Your task to perform on an android device: turn off translation in the chrome app Image 0: 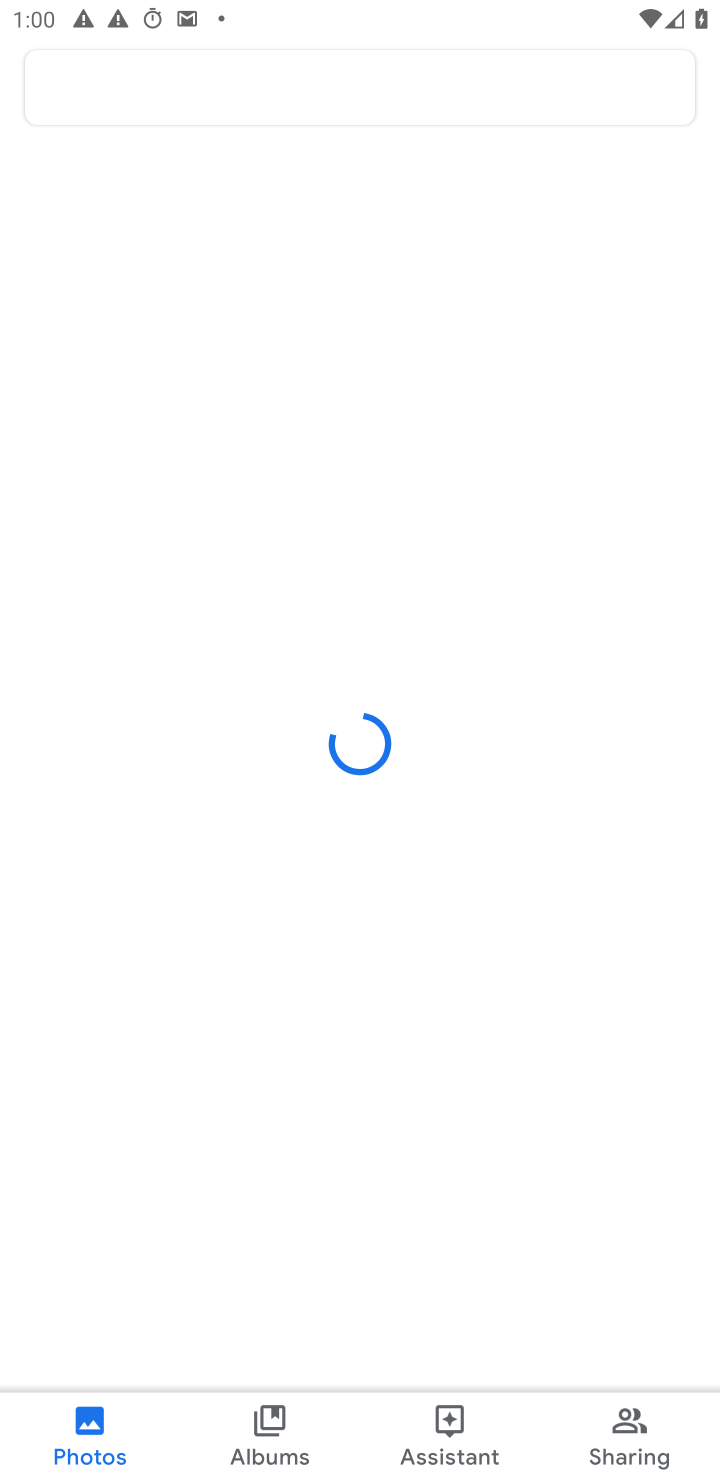
Step 0: press home button
Your task to perform on an android device: turn off translation in the chrome app Image 1: 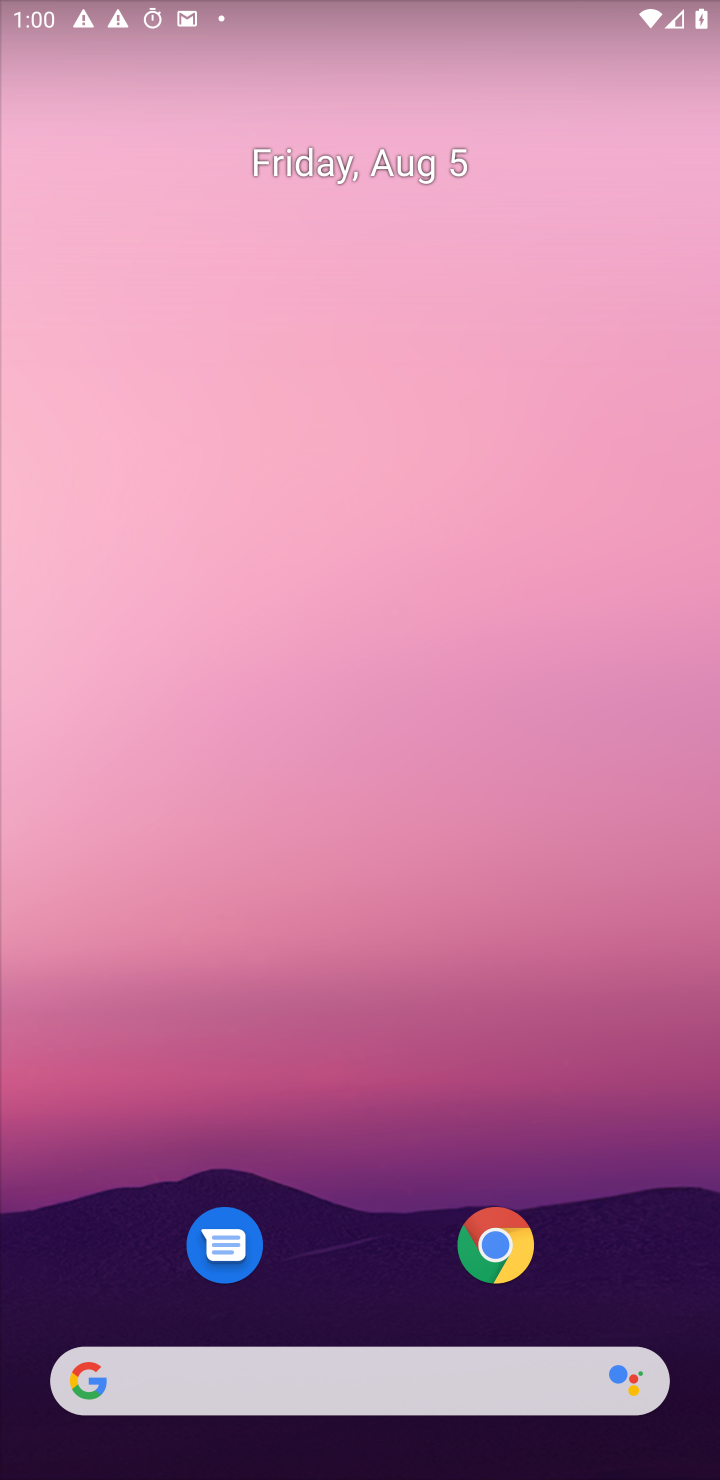
Step 1: drag from (410, 1114) to (417, 254)
Your task to perform on an android device: turn off translation in the chrome app Image 2: 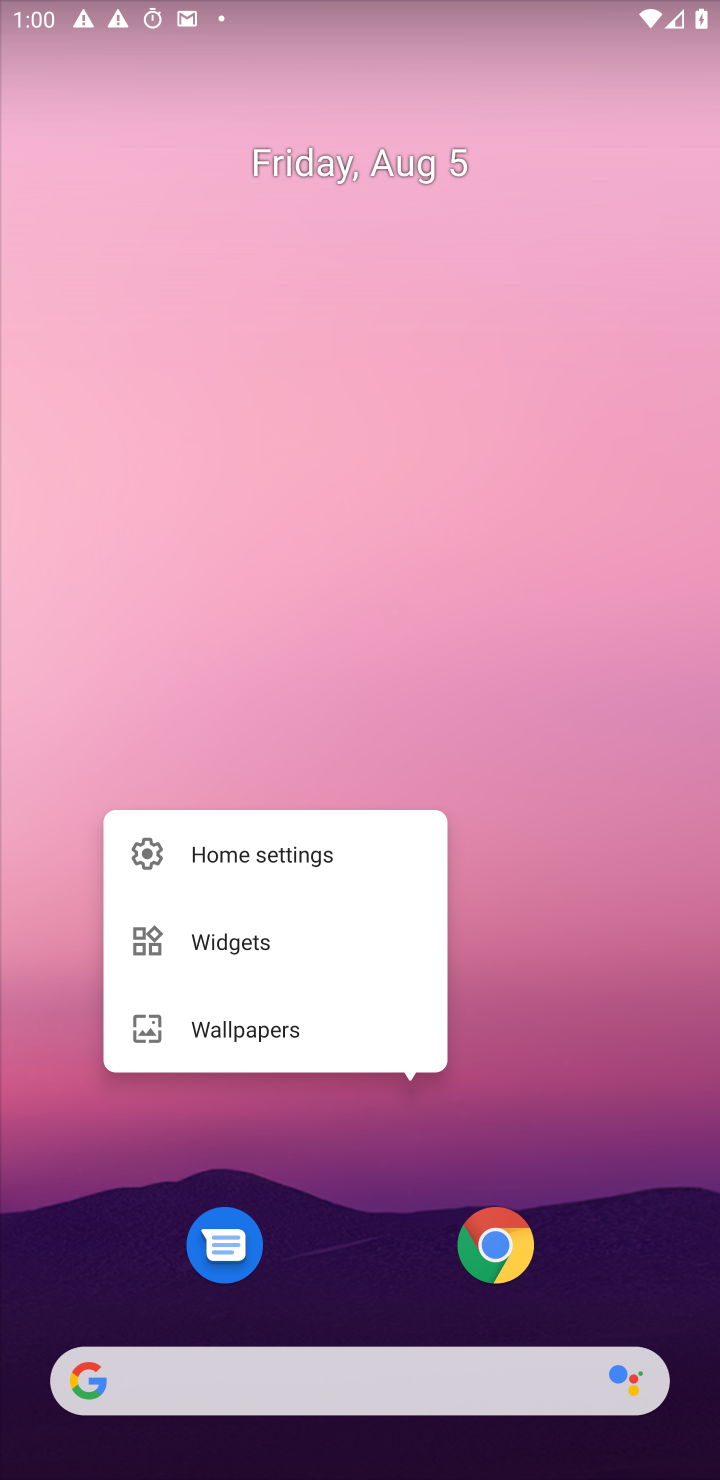
Step 2: click (630, 1251)
Your task to perform on an android device: turn off translation in the chrome app Image 3: 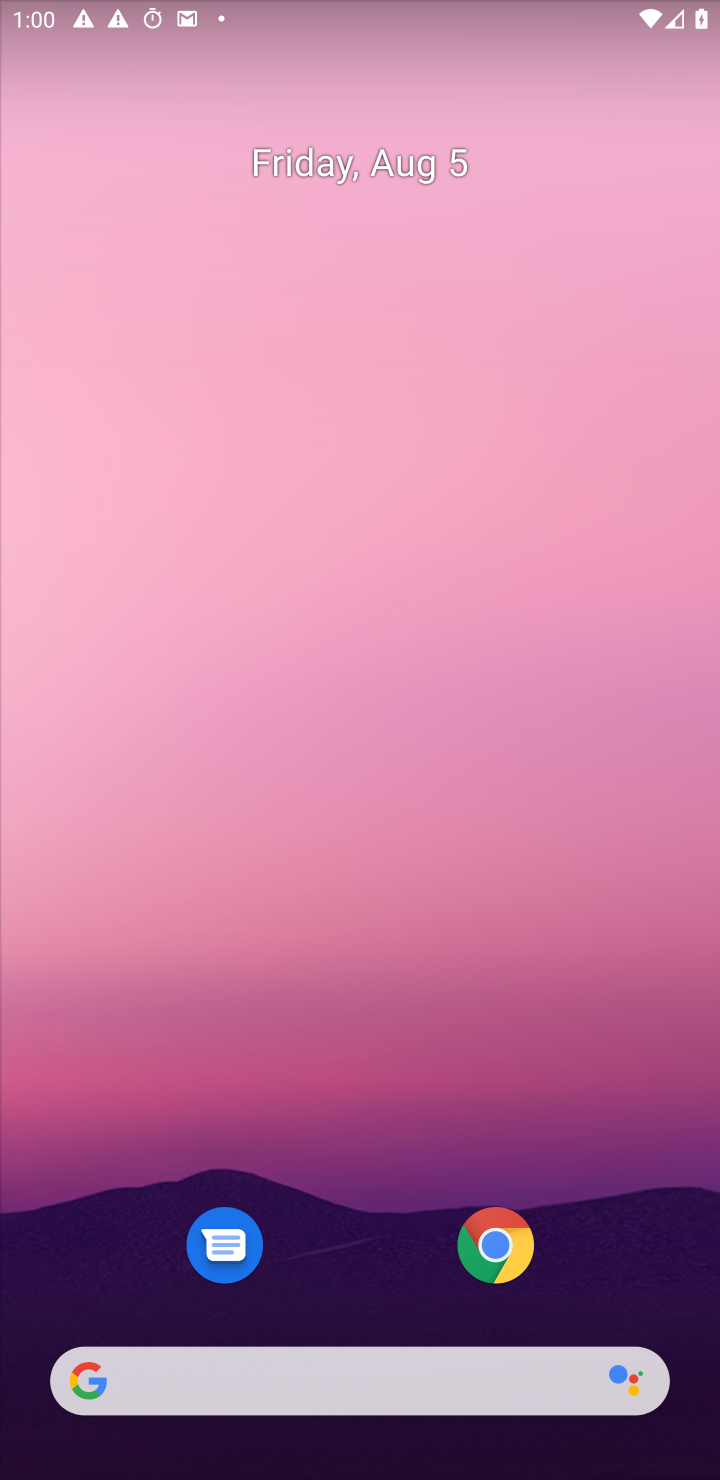
Step 3: drag from (413, 776) to (398, 269)
Your task to perform on an android device: turn off translation in the chrome app Image 4: 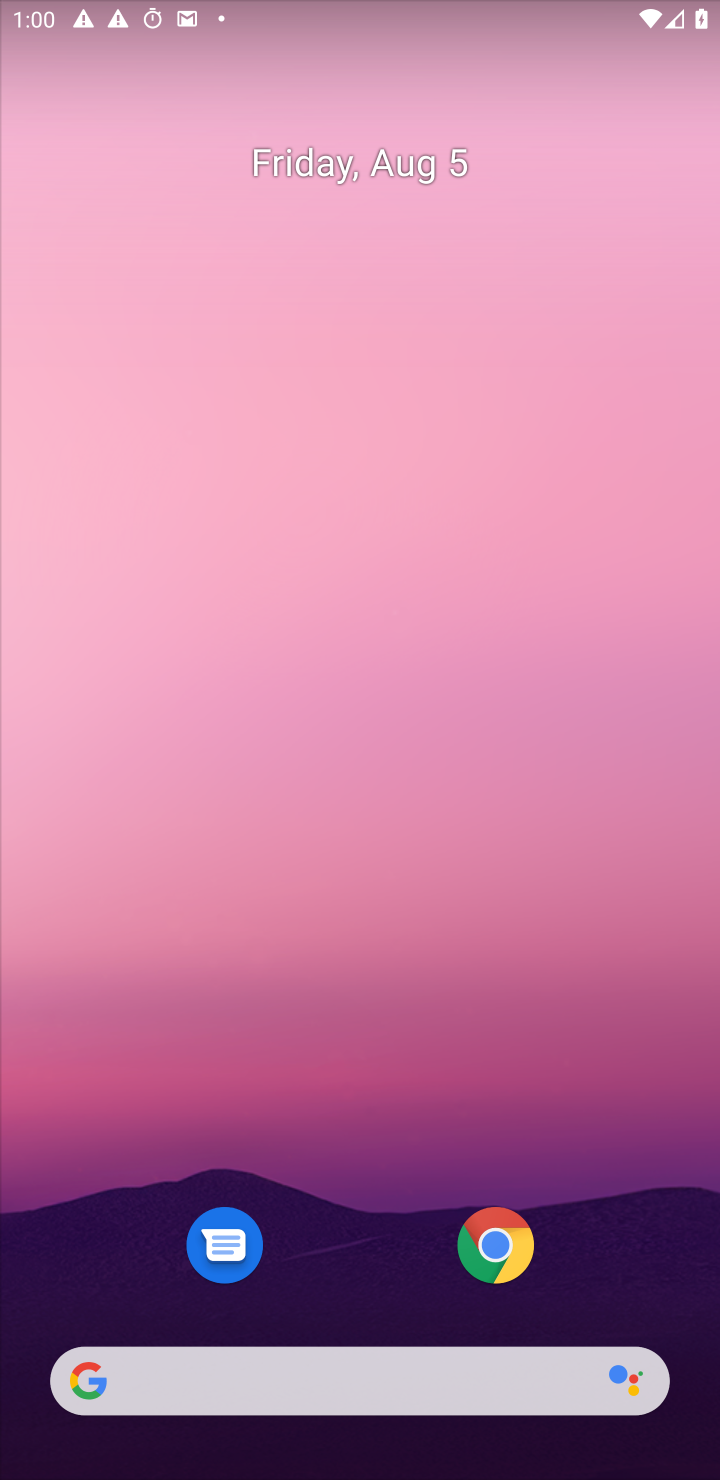
Step 4: drag from (364, 1284) to (373, 241)
Your task to perform on an android device: turn off translation in the chrome app Image 5: 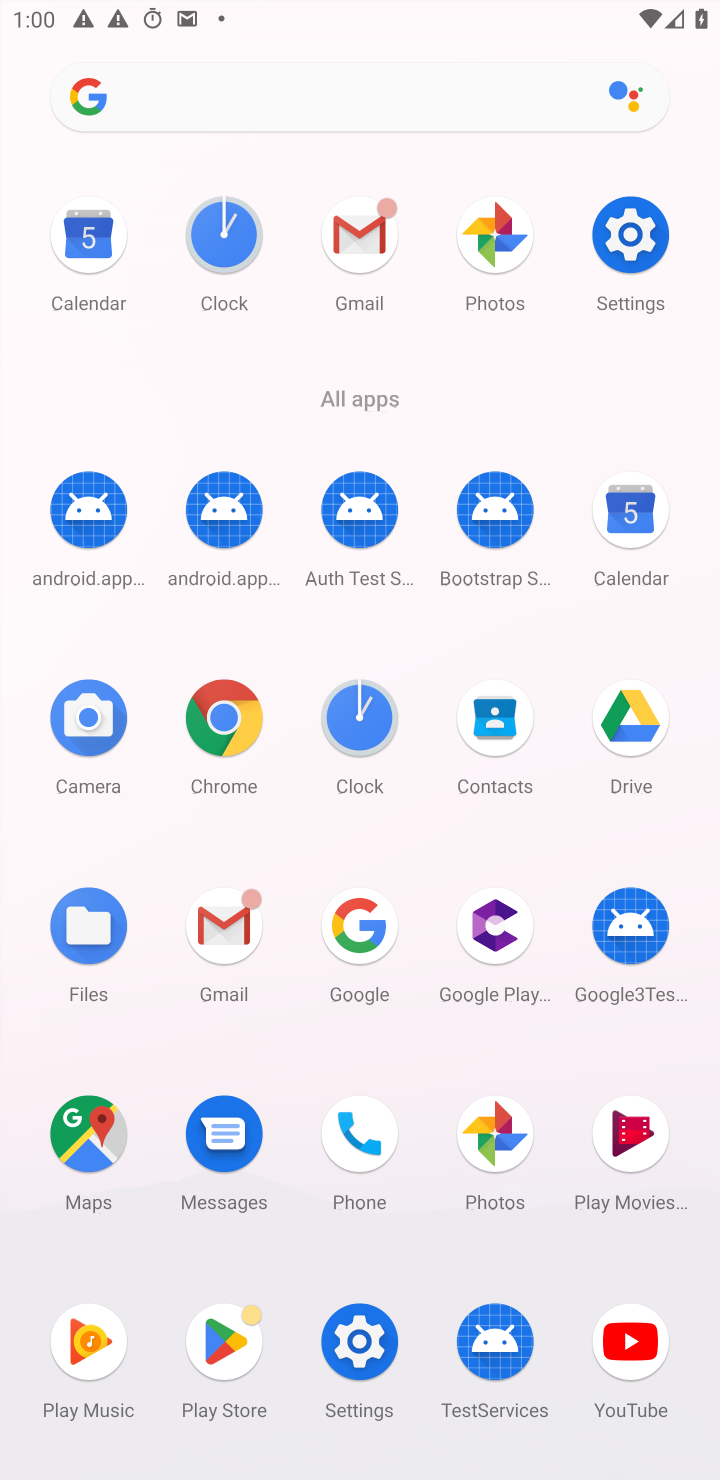
Step 5: click (201, 732)
Your task to perform on an android device: turn off translation in the chrome app Image 6: 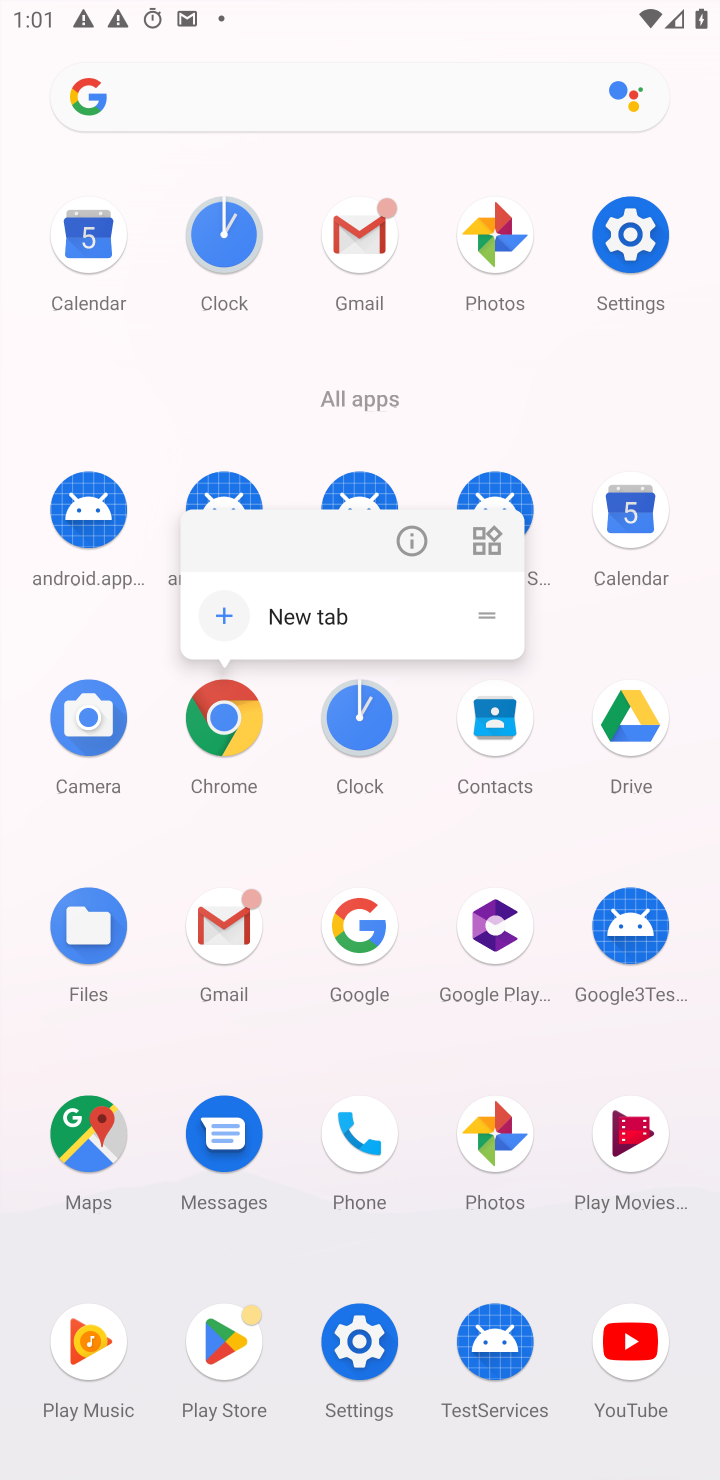
Step 6: click (197, 717)
Your task to perform on an android device: turn off translation in the chrome app Image 7: 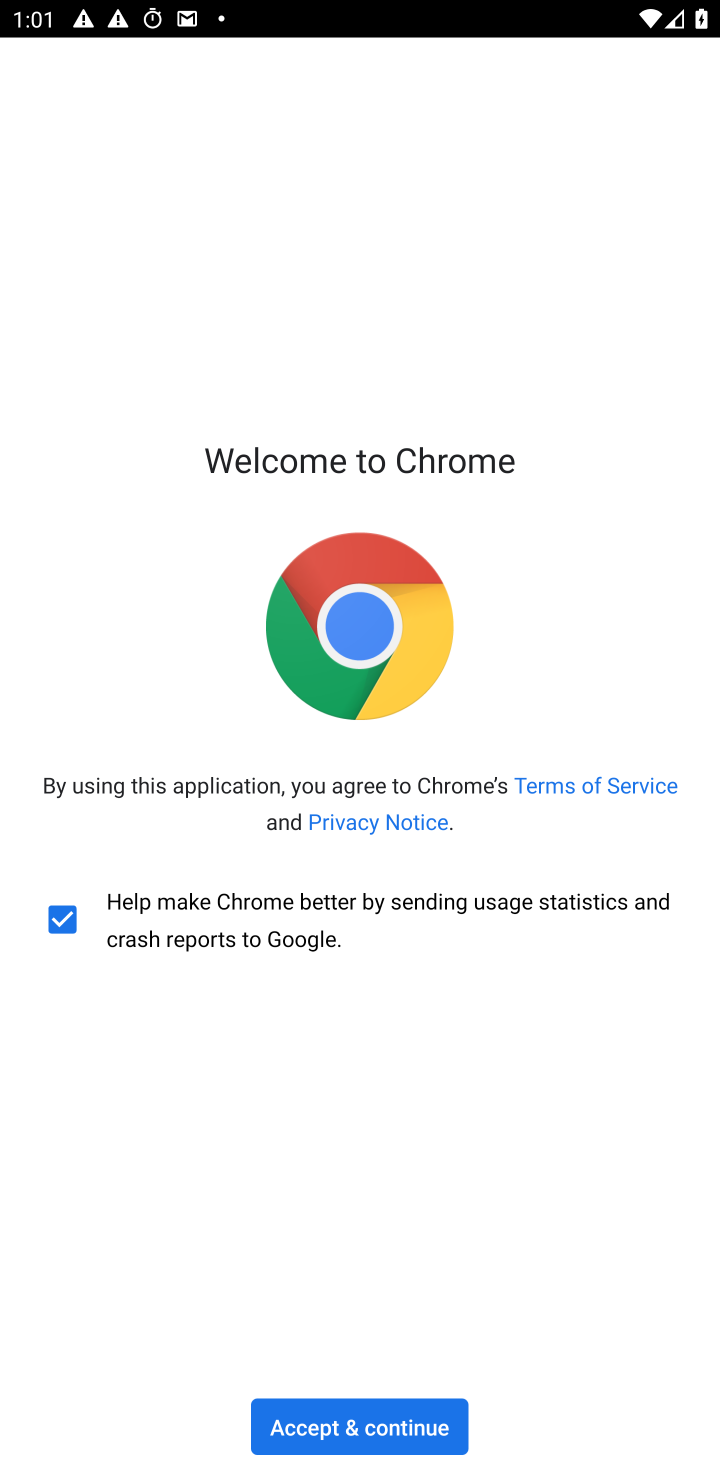
Step 7: click (324, 1438)
Your task to perform on an android device: turn off translation in the chrome app Image 8: 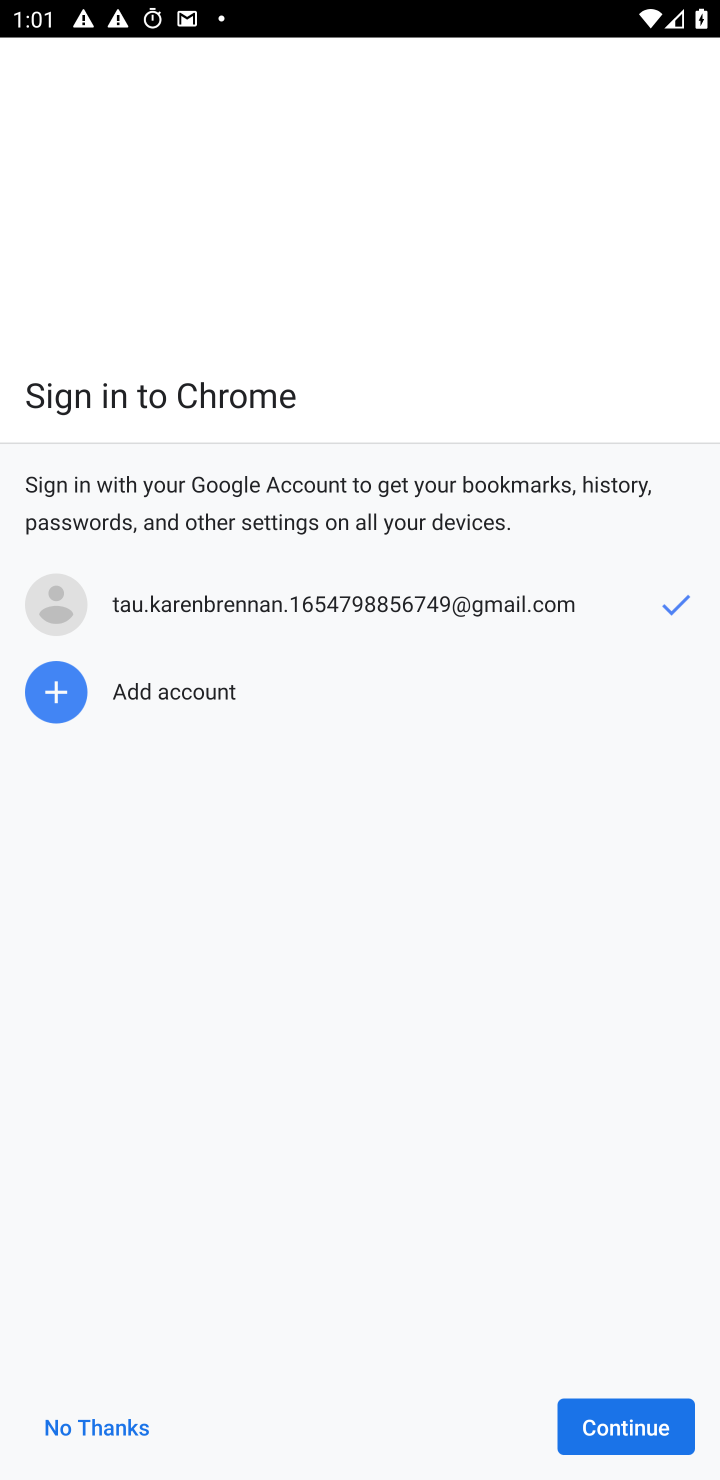
Step 8: click (601, 1440)
Your task to perform on an android device: turn off translation in the chrome app Image 9: 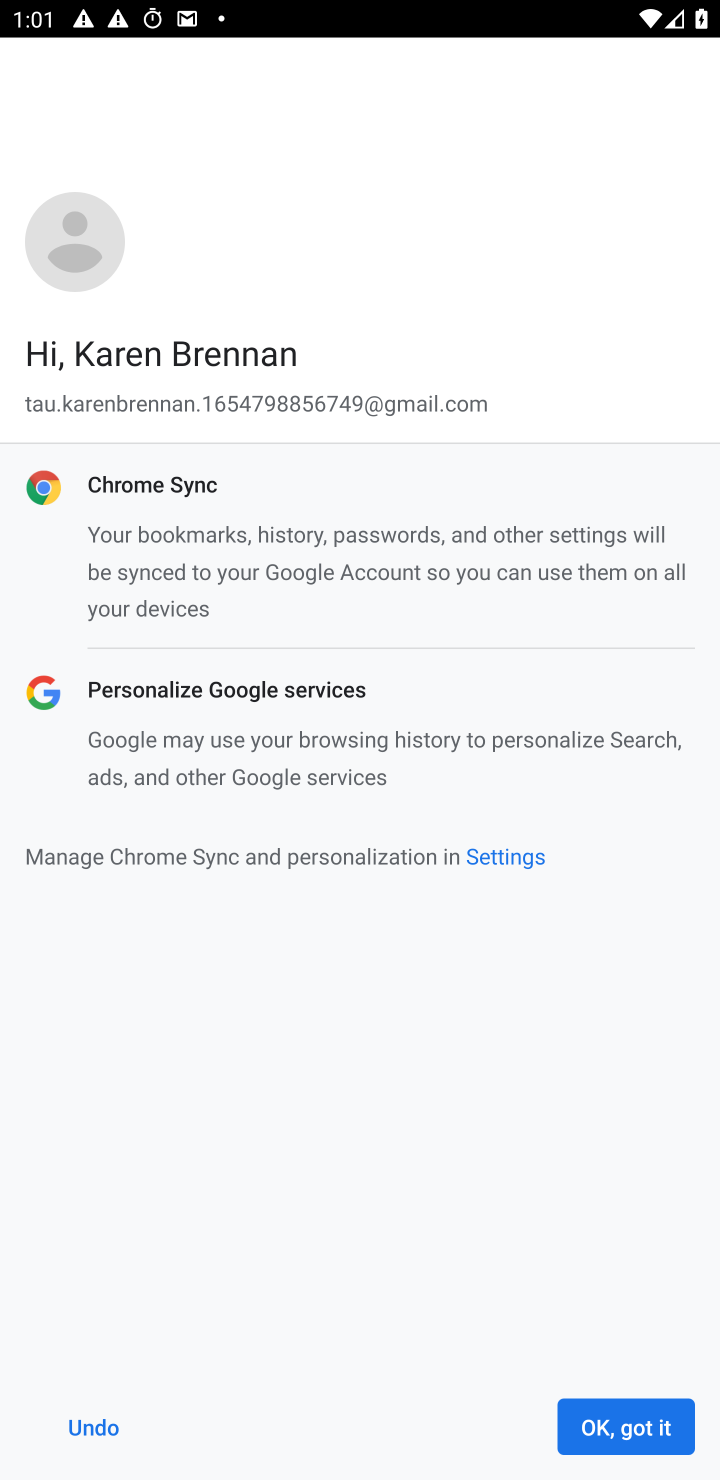
Step 9: click (606, 1442)
Your task to perform on an android device: turn off translation in the chrome app Image 10: 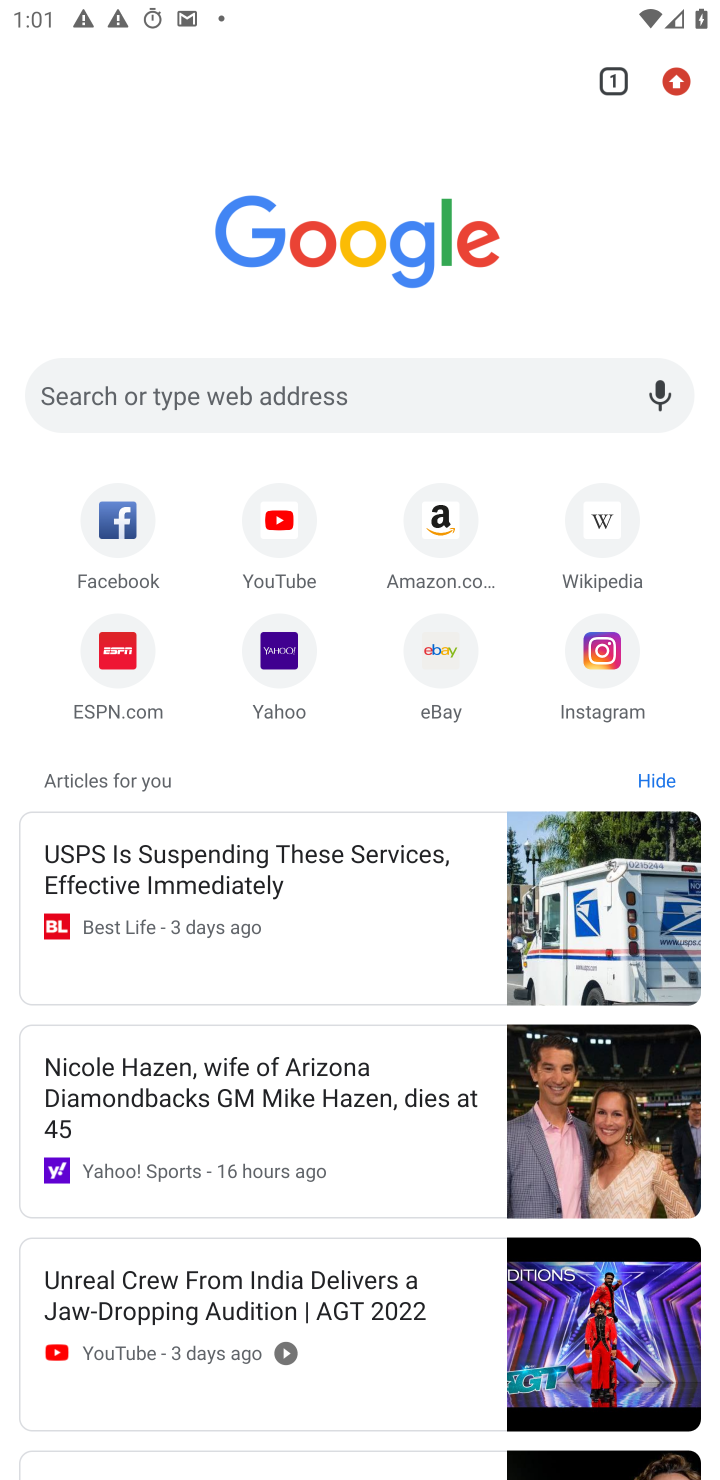
Step 10: drag from (677, 86) to (379, 786)
Your task to perform on an android device: turn off translation in the chrome app Image 11: 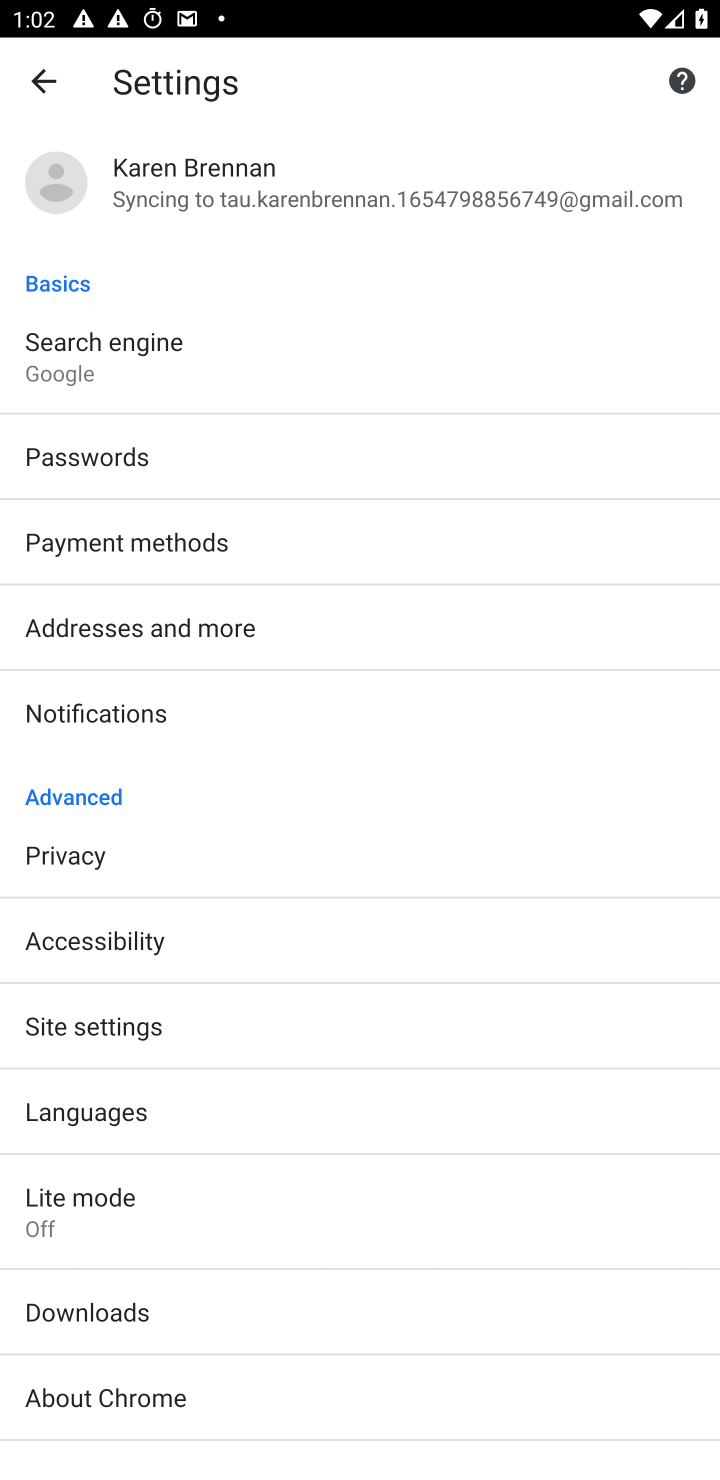
Step 11: click (81, 1113)
Your task to perform on an android device: turn off translation in the chrome app Image 12: 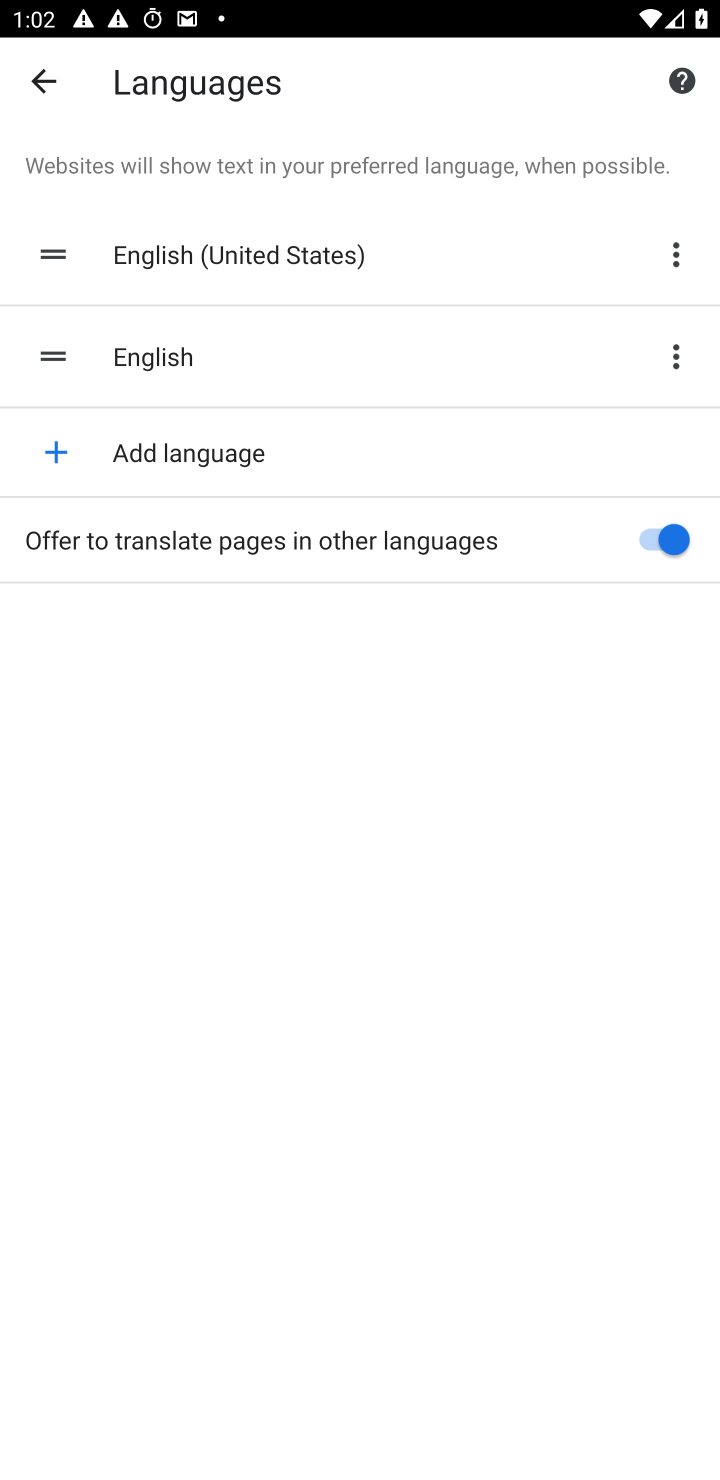
Step 12: click (679, 545)
Your task to perform on an android device: turn off translation in the chrome app Image 13: 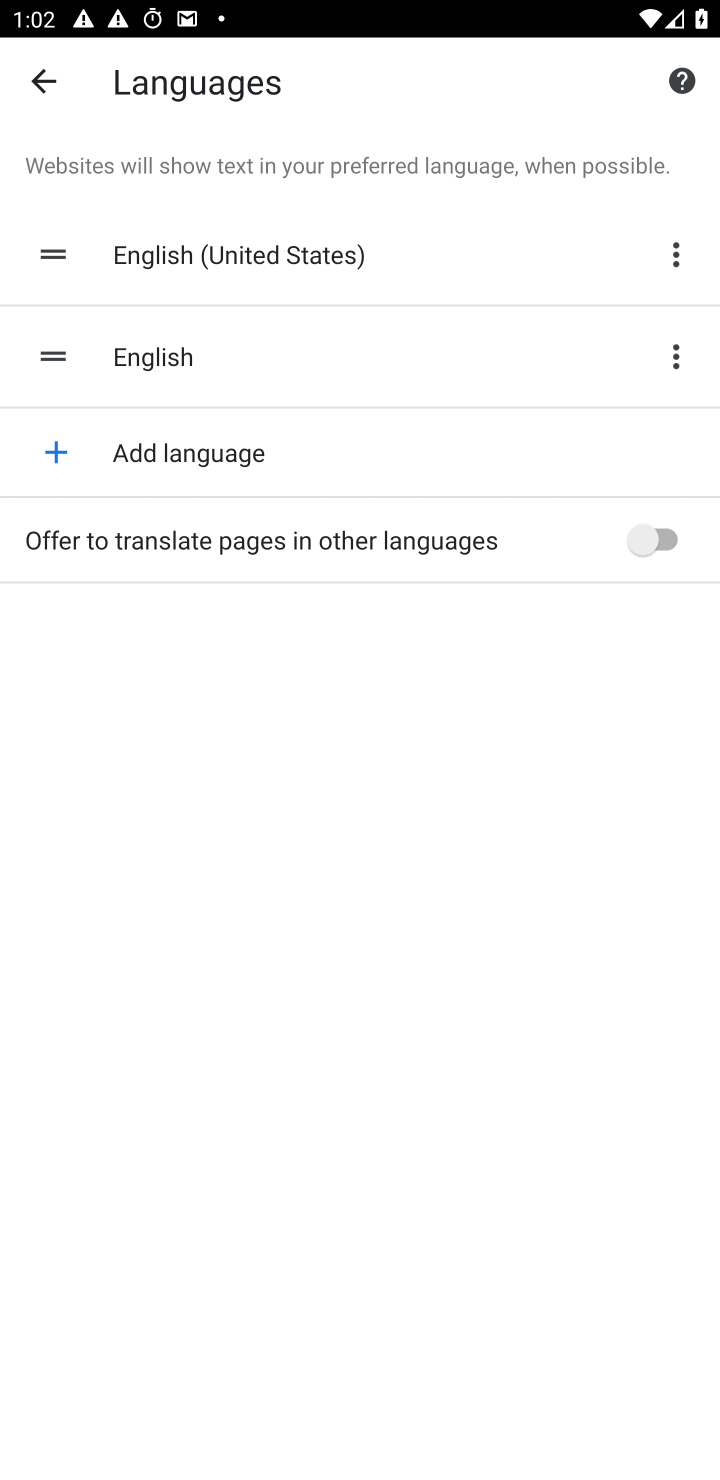
Step 13: task complete